Your task to perform on an android device: Check the news Image 0: 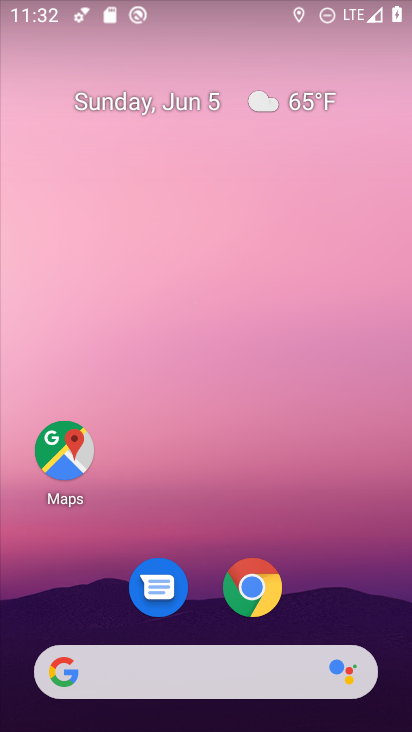
Step 0: click (246, 683)
Your task to perform on an android device: Check the news Image 1: 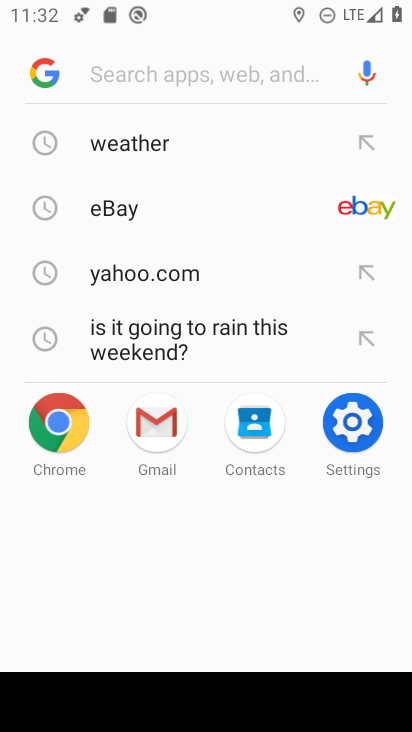
Step 1: type "newa"
Your task to perform on an android device: Check the news Image 2: 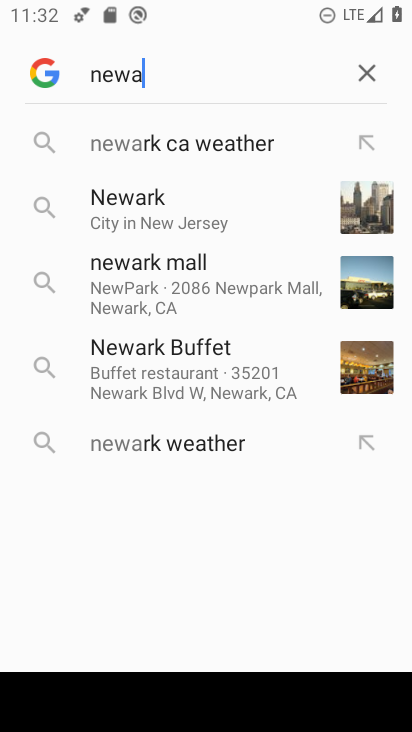
Step 2: click (41, 73)
Your task to perform on an android device: Check the news Image 3: 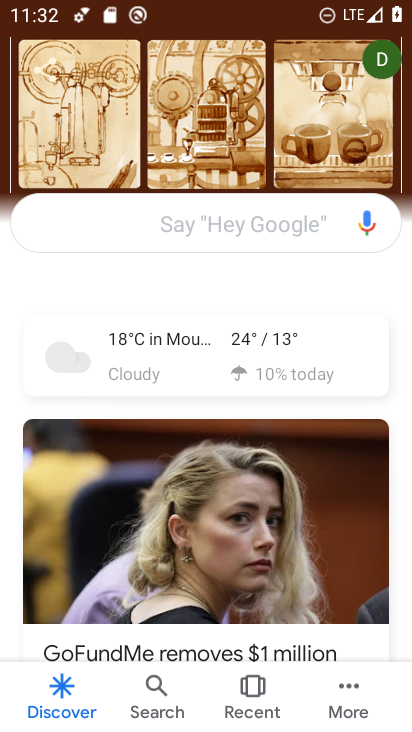
Step 3: task complete